Your task to perform on an android device: turn on translation in the chrome app Image 0: 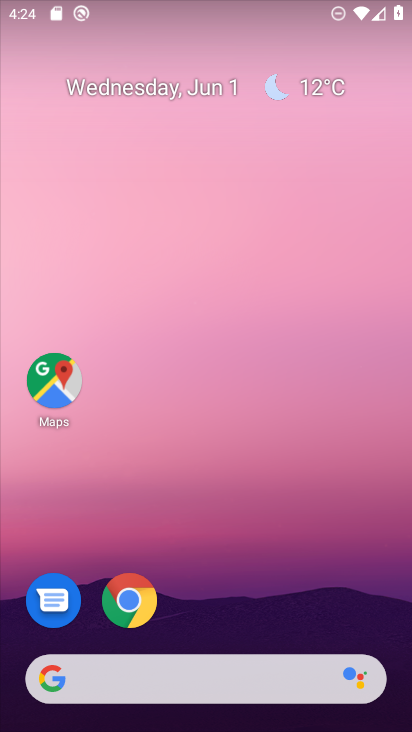
Step 0: click (128, 603)
Your task to perform on an android device: turn on translation in the chrome app Image 1: 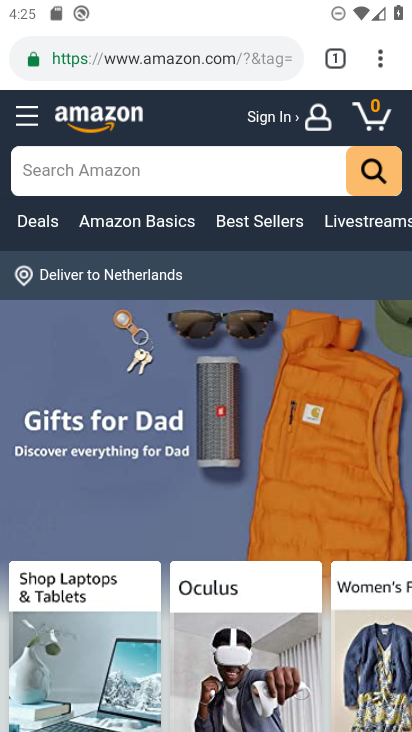
Step 1: click (381, 68)
Your task to perform on an android device: turn on translation in the chrome app Image 2: 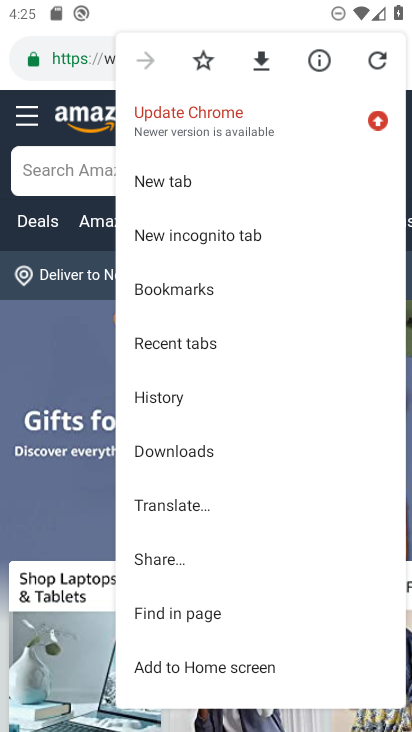
Step 2: drag from (258, 652) to (267, 202)
Your task to perform on an android device: turn on translation in the chrome app Image 3: 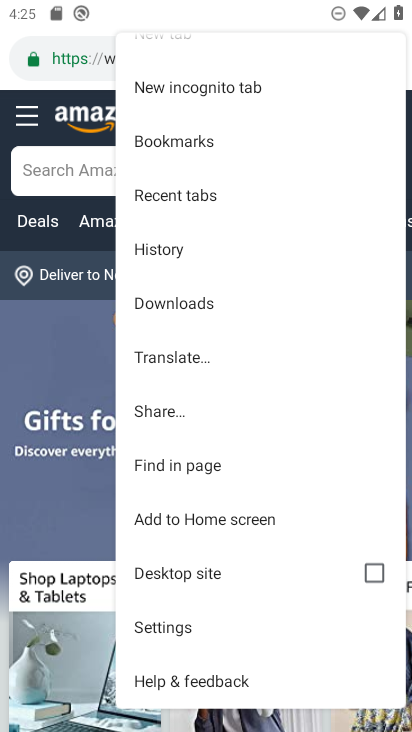
Step 3: click (157, 628)
Your task to perform on an android device: turn on translation in the chrome app Image 4: 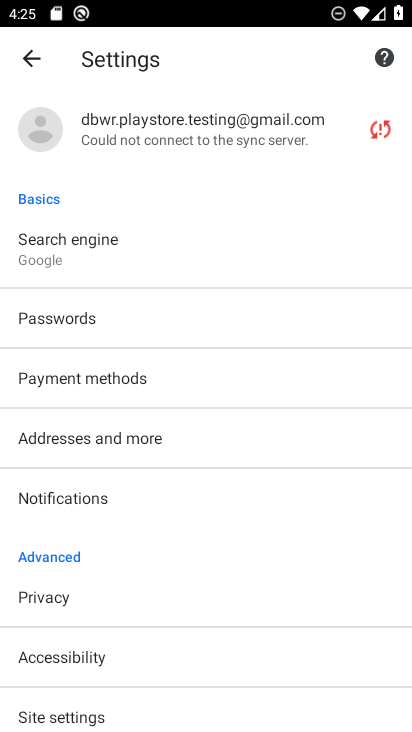
Step 4: drag from (218, 650) to (210, 251)
Your task to perform on an android device: turn on translation in the chrome app Image 5: 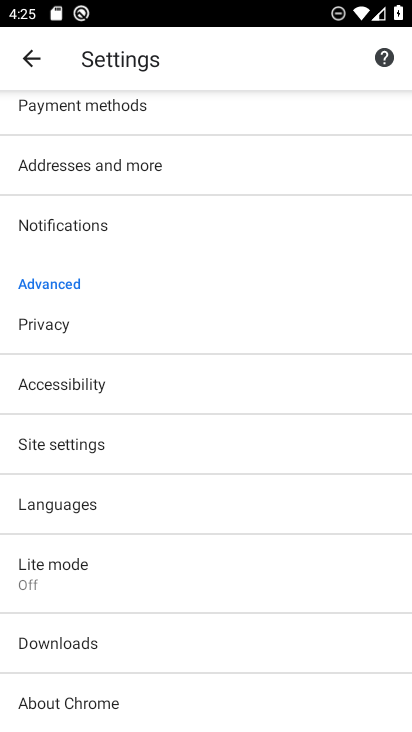
Step 5: click (77, 491)
Your task to perform on an android device: turn on translation in the chrome app Image 6: 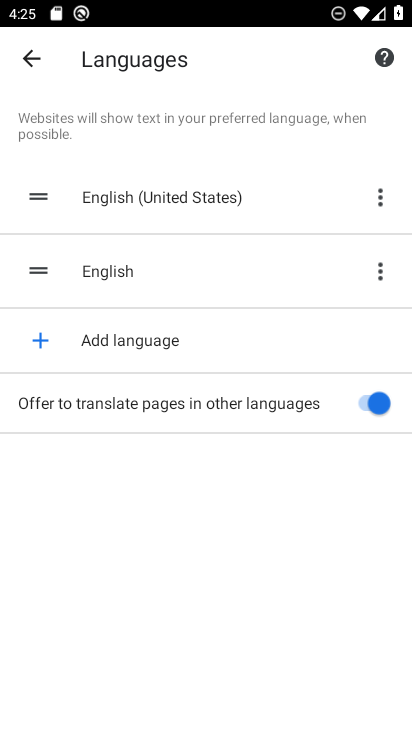
Step 6: task complete